Your task to perform on an android device: Google the capital of Uruguay Image 0: 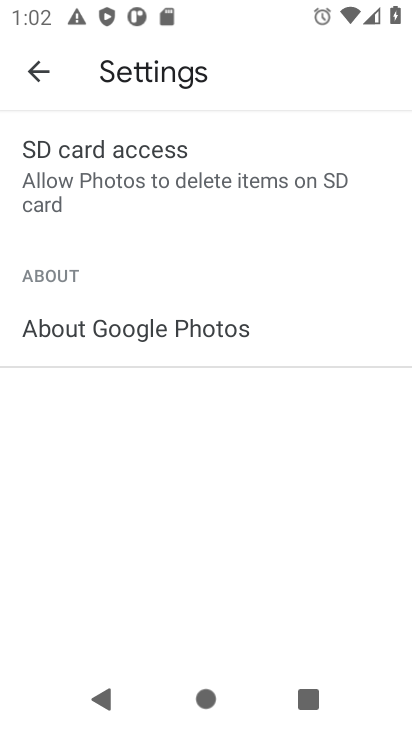
Step 0: press home button
Your task to perform on an android device: Google the capital of Uruguay Image 1: 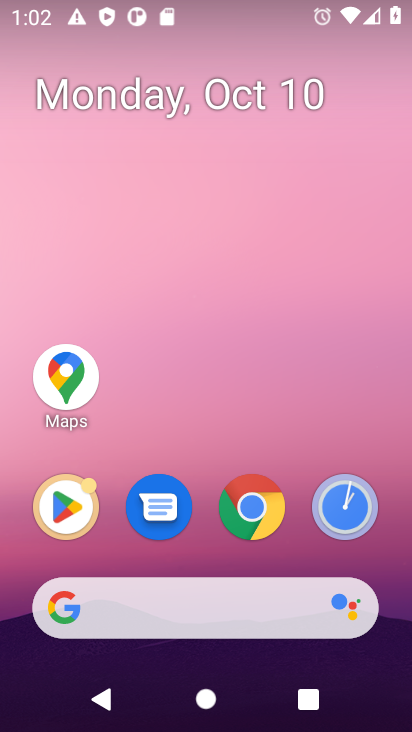
Step 1: click (270, 594)
Your task to perform on an android device: Google the capital of Uruguay Image 2: 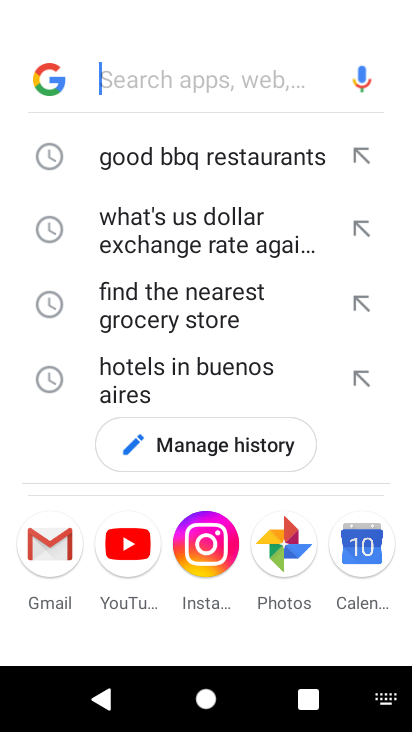
Step 2: type "Google the capital of Uruguay"
Your task to perform on an android device: Google the capital of Uruguay Image 3: 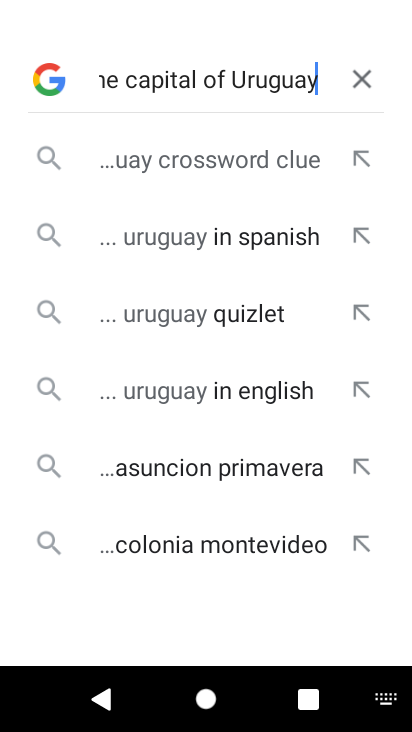
Step 3: press enter
Your task to perform on an android device: Google the capital of Uruguay Image 4: 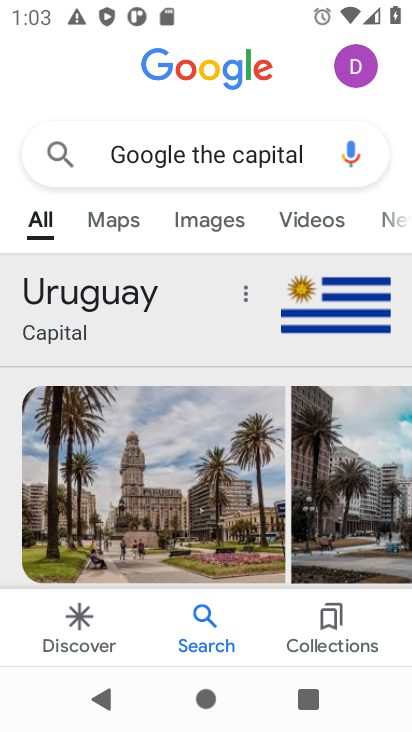
Step 4: task complete